Your task to perform on an android device: turn smart compose on in the gmail app Image 0: 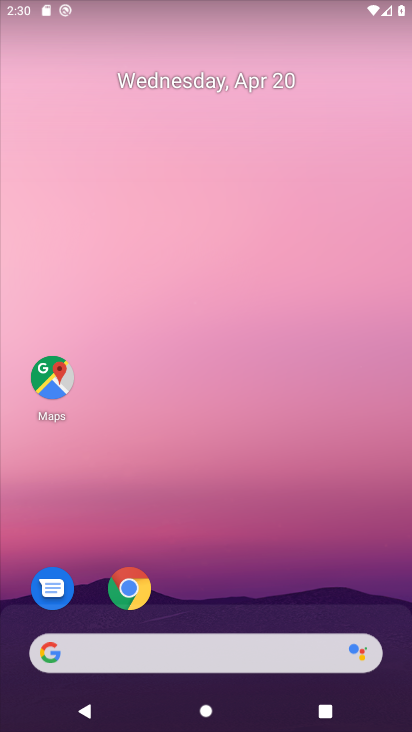
Step 0: drag from (264, 699) to (264, 7)
Your task to perform on an android device: turn smart compose on in the gmail app Image 1: 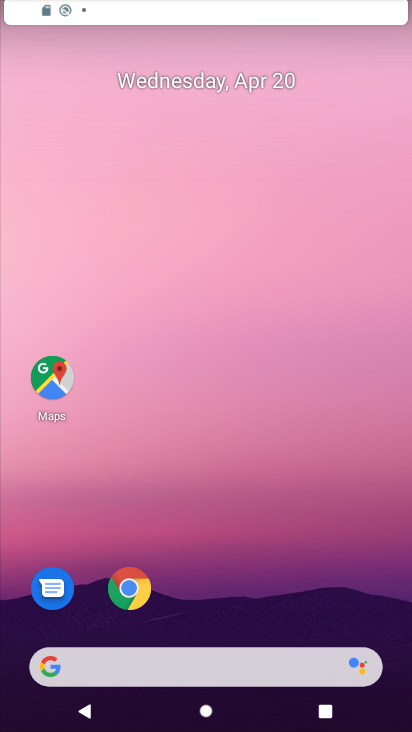
Step 1: drag from (197, 415) to (131, 109)
Your task to perform on an android device: turn smart compose on in the gmail app Image 2: 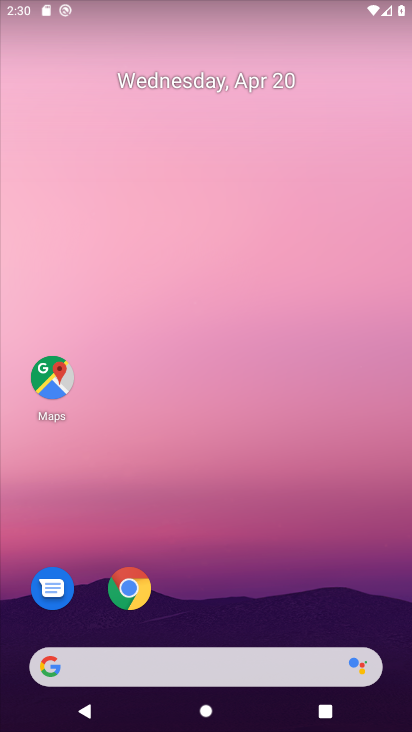
Step 2: click (216, 184)
Your task to perform on an android device: turn smart compose on in the gmail app Image 3: 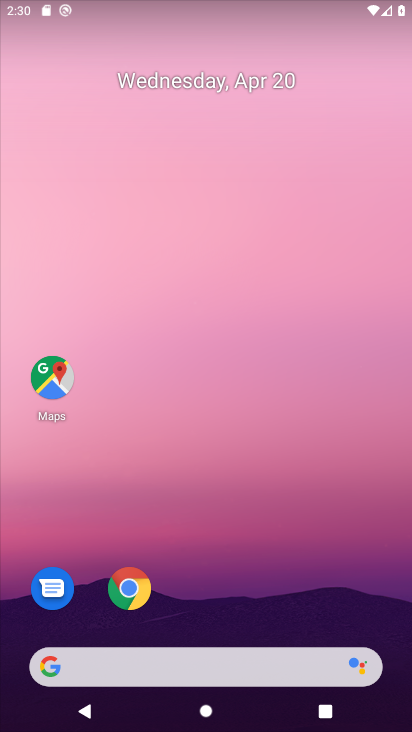
Step 3: drag from (180, 536) to (127, 130)
Your task to perform on an android device: turn smart compose on in the gmail app Image 4: 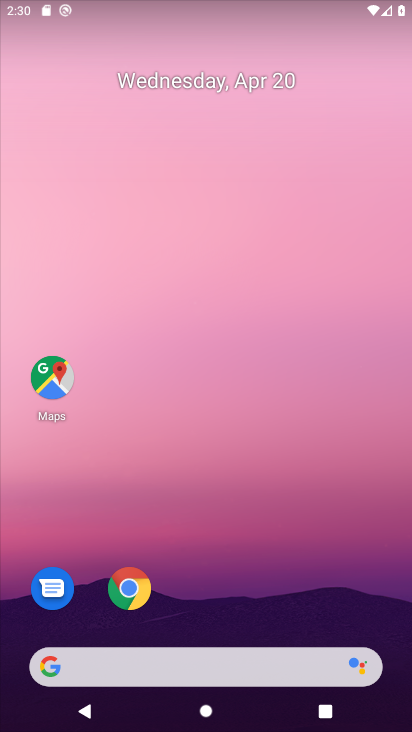
Step 4: drag from (168, 463) to (113, 82)
Your task to perform on an android device: turn smart compose on in the gmail app Image 5: 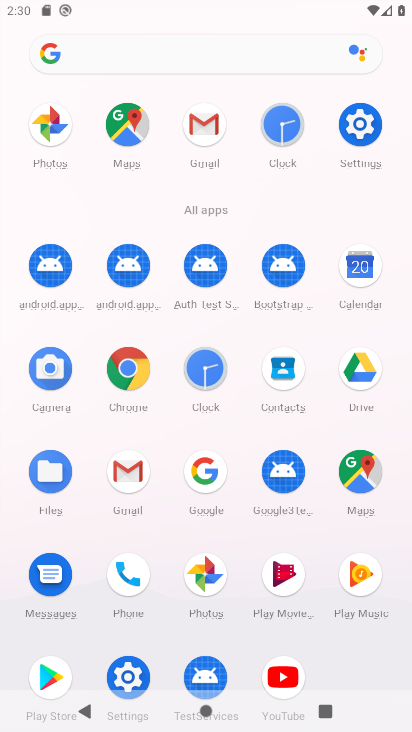
Step 5: click (200, 120)
Your task to perform on an android device: turn smart compose on in the gmail app Image 6: 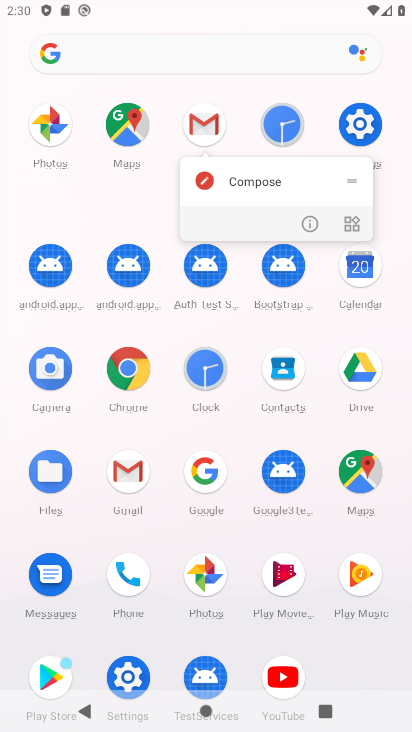
Step 6: click (201, 120)
Your task to perform on an android device: turn smart compose on in the gmail app Image 7: 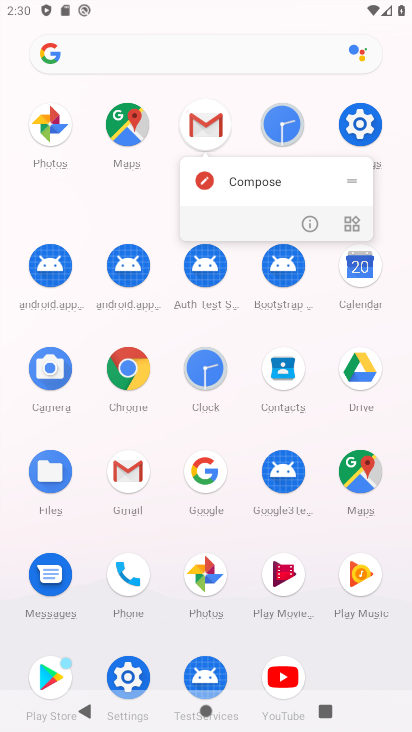
Step 7: drag from (201, 120) to (165, 102)
Your task to perform on an android device: turn smart compose on in the gmail app Image 8: 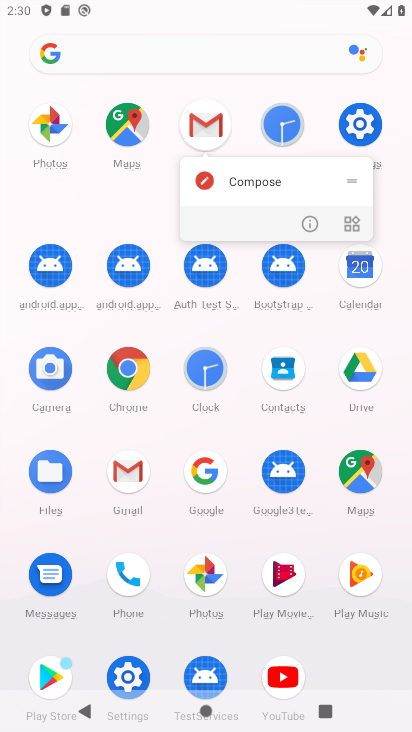
Step 8: click (194, 134)
Your task to perform on an android device: turn smart compose on in the gmail app Image 9: 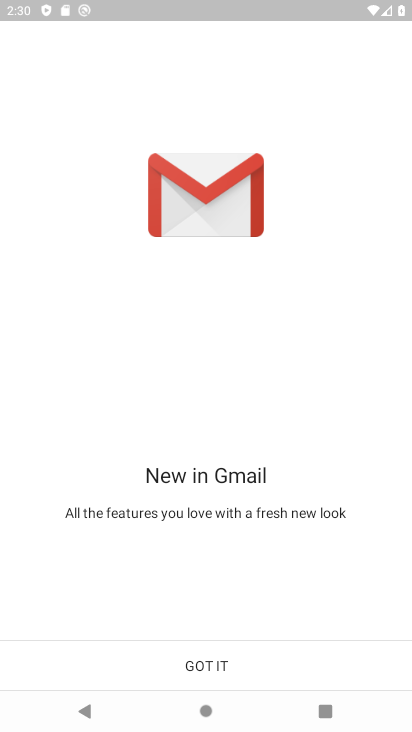
Step 9: click (211, 653)
Your task to perform on an android device: turn smart compose on in the gmail app Image 10: 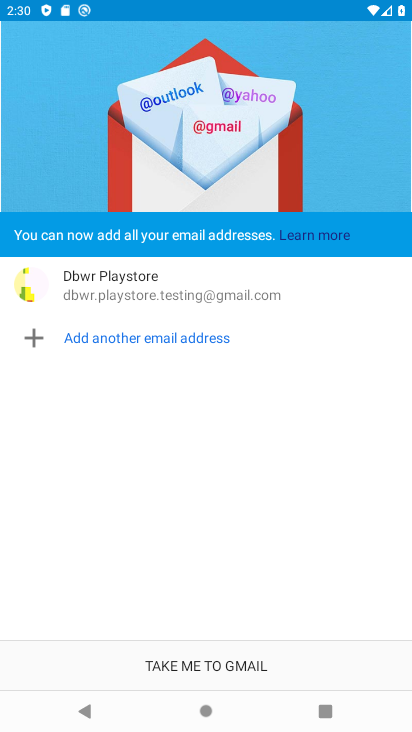
Step 10: click (208, 663)
Your task to perform on an android device: turn smart compose on in the gmail app Image 11: 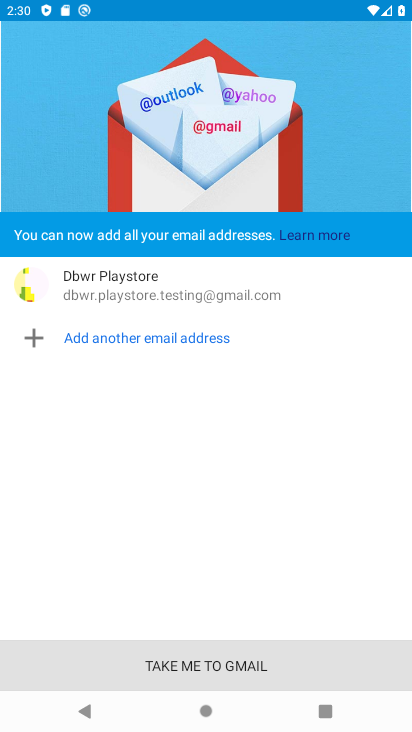
Step 11: click (208, 663)
Your task to perform on an android device: turn smart compose on in the gmail app Image 12: 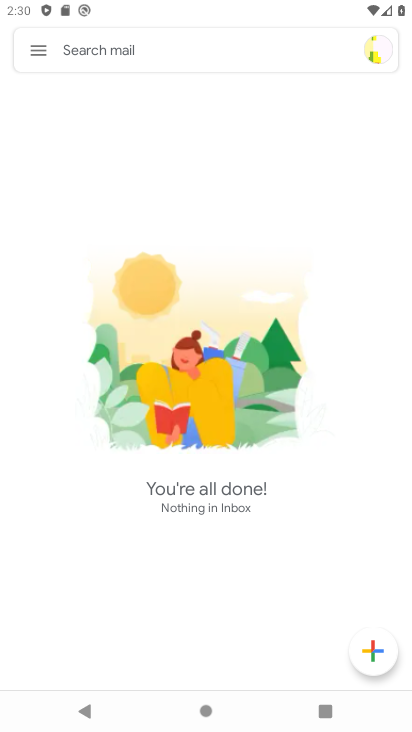
Step 12: click (35, 49)
Your task to perform on an android device: turn smart compose on in the gmail app Image 13: 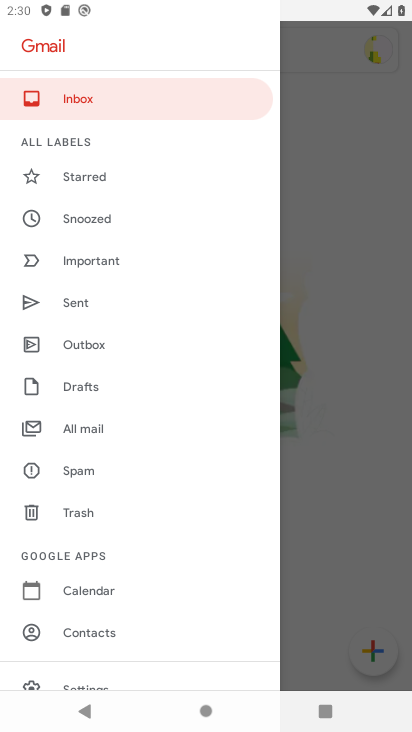
Step 13: drag from (101, 572) to (16, 57)
Your task to perform on an android device: turn smart compose on in the gmail app Image 14: 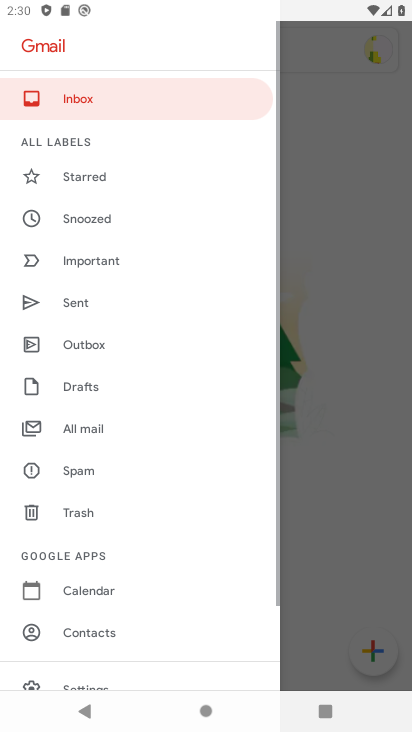
Step 14: drag from (135, 566) to (54, 126)
Your task to perform on an android device: turn smart compose on in the gmail app Image 15: 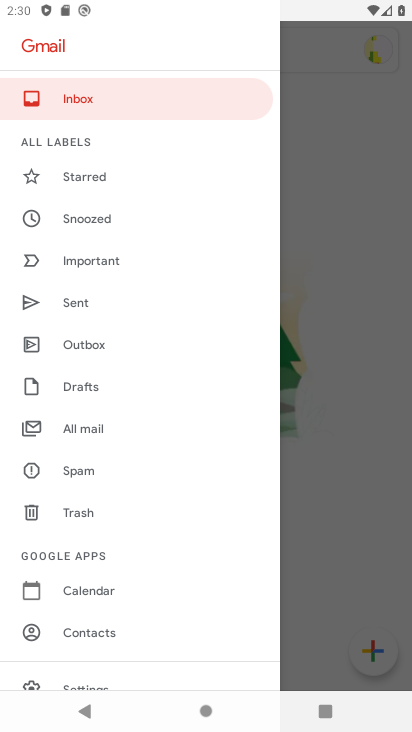
Step 15: drag from (132, 598) to (81, 277)
Your task to perform on an android device: turn smart compose on in the gmail app Image 16: 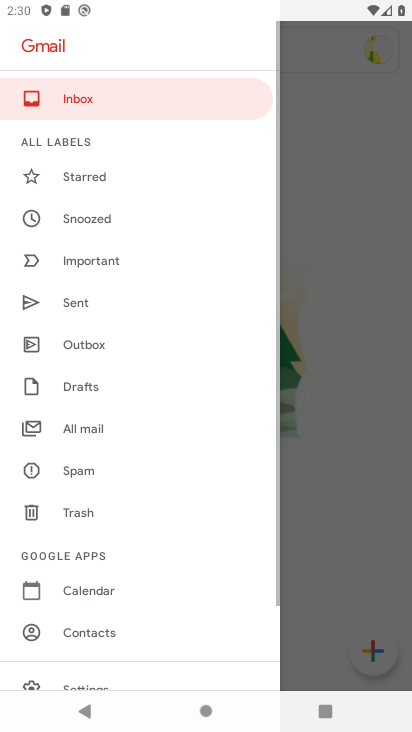
Step 16: drag from (118, 577) to (91, 65)
Your task to perform on an android device: turn smart compose on in the gmail app Image 17: 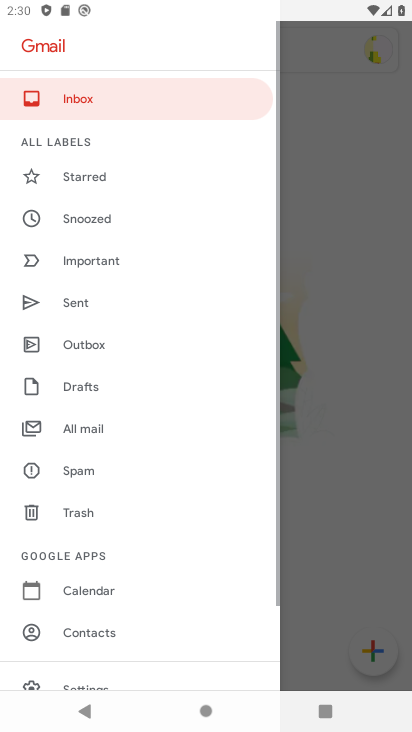
Step 17: drag from (111, 631) to (75, 358)
Your task to perform on an android device: turn smart compose on in the gmail app Image 18: 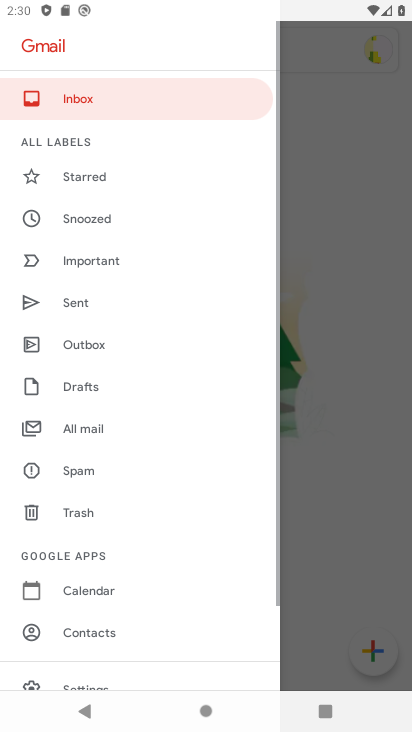
Step 18: drag from (183, 494) to (201, 150)
Your task to perform on an android device: turn smart compose on in the gmail app Image 19: 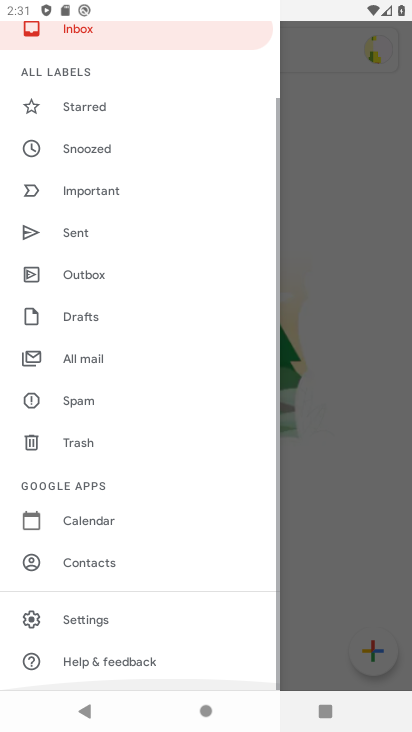
Step 19: drag from (48, 612) to (89, 419)
Your task to perform on an android device: turn smart compose on in the gmail app Image 20: 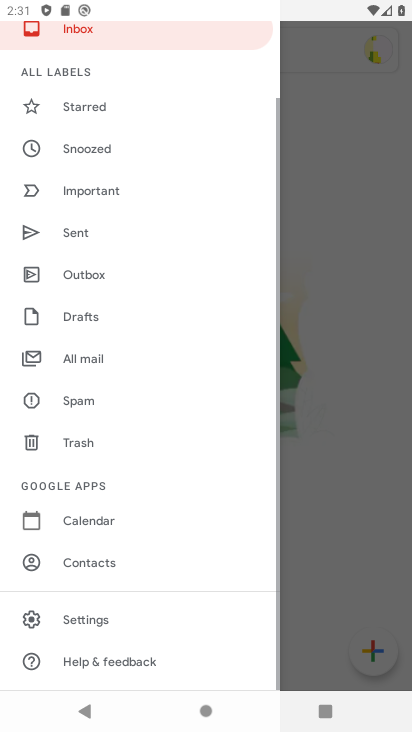
Step 20: click (89, 612)
Your task to perform on an android device: turn smart compose on in the gmail app Image 21: 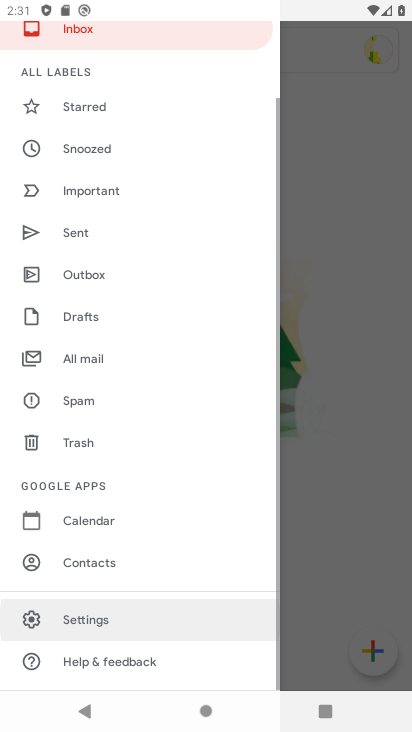
Step 21: click (90, 611)
Your task to perform on an android device: turn smart compose on in the gmail app Image 22: 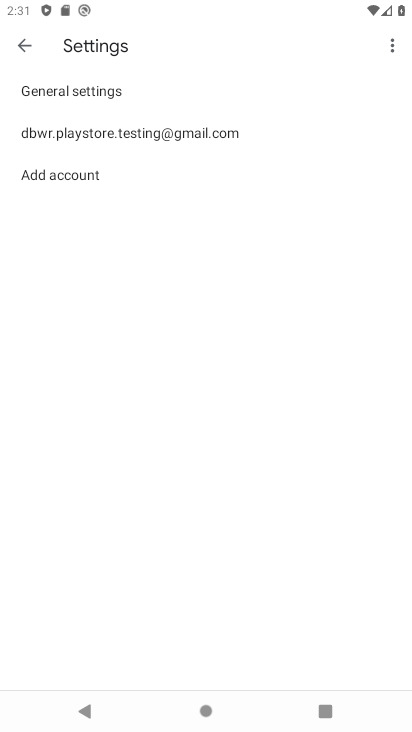
Step 22: click (99, 136)
Your task to perform on an android device: turn smart compose on in the gmail app Image 23: 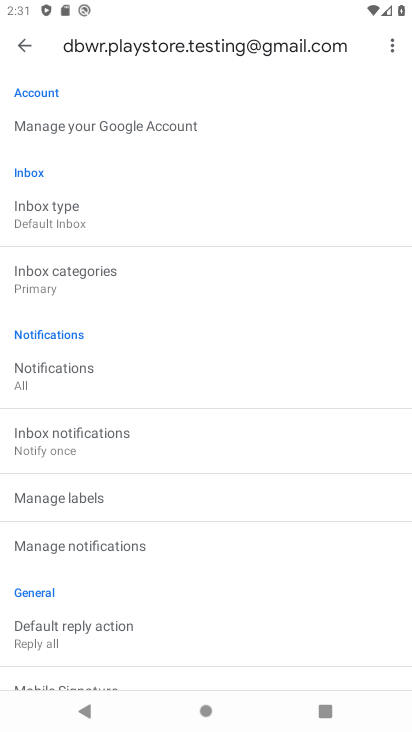
Step 23: task complete